Your task to perform on an android device: change text size in settings app Image 0: 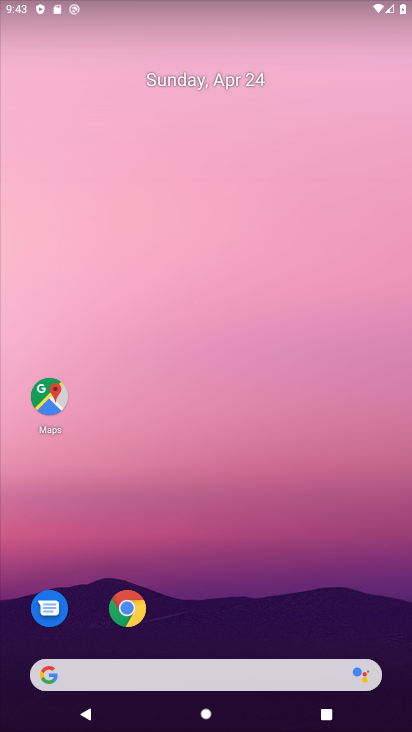
Step 0: drag from (251, 688) to (231, 153)
Your task to perform on an android device: change text size in settings app Image 1: 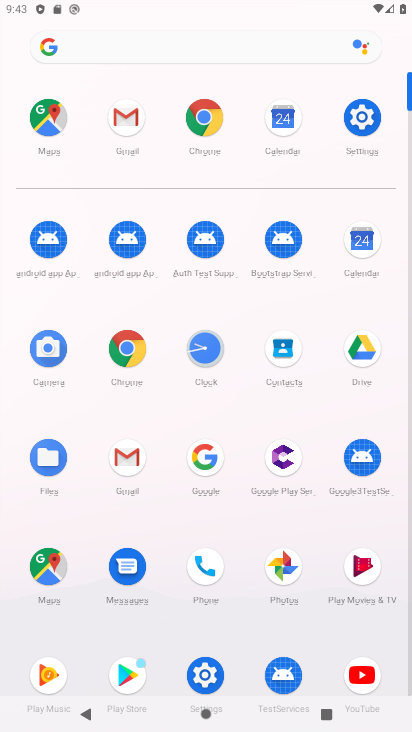
Step 1: click (365, 117)
Your task to perform on an android device: change text size in settings app Image 2: 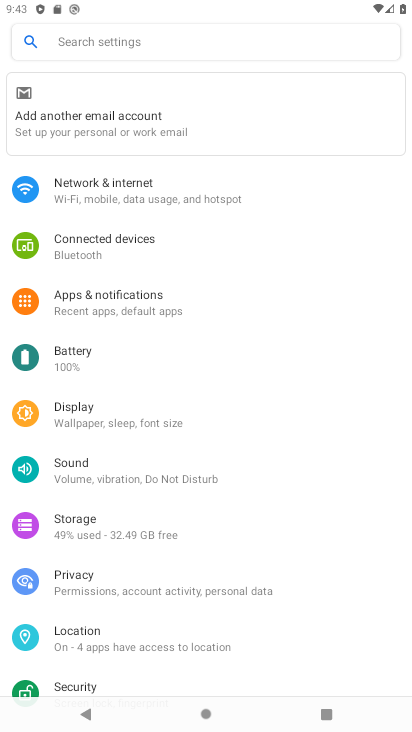
Step 2: click (131, 46)
Your task to perform on an android device: change text size in settings app Image 3: 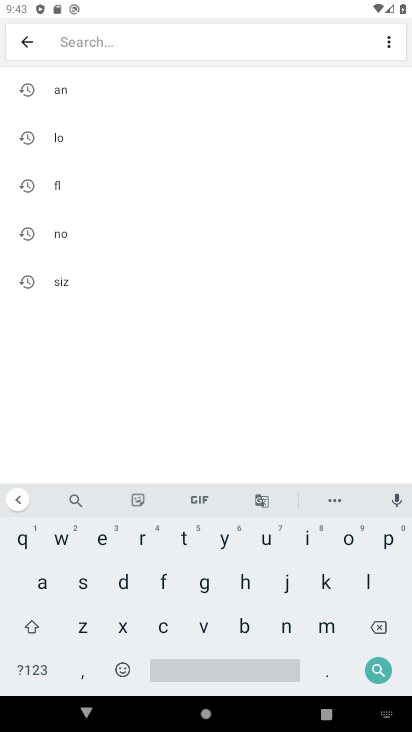
Step 3: click (68, 285)
Your task to perform on an android device: change text size in settings app Image 4: 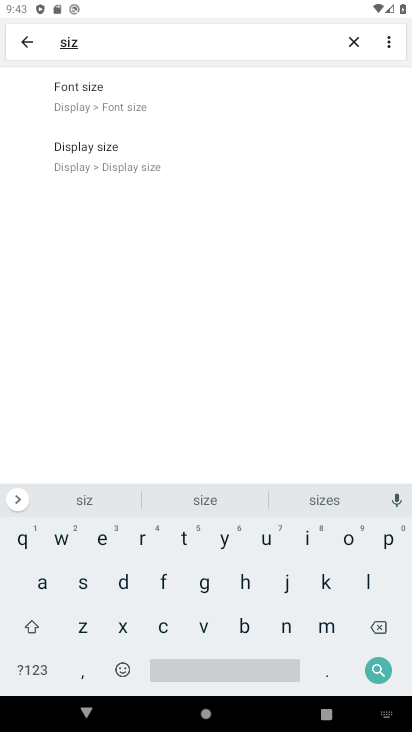
Step 4: click (139, 82)
Your task to perform on an android device: change text size in settings app Image 5: 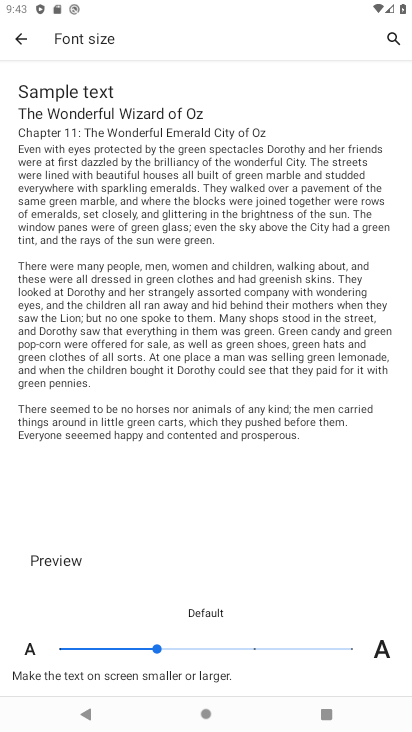
Step 5: click (79, 644)
Your task to perform on an android device: change text size in settings app Image 6: 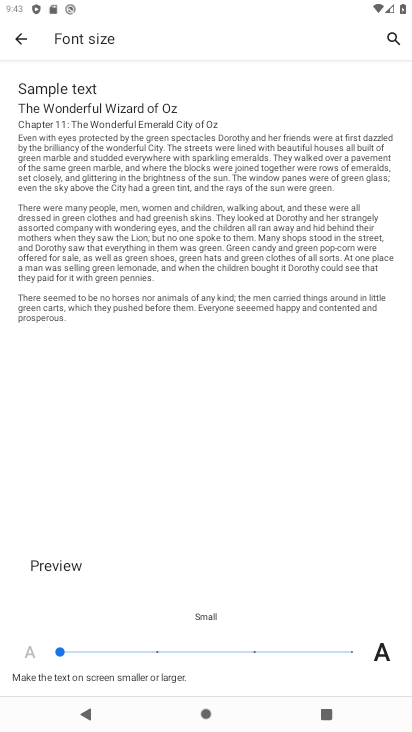
Step 6: click (164, 643)
Your task to perform on an android device: change text size in settings app Image 7: 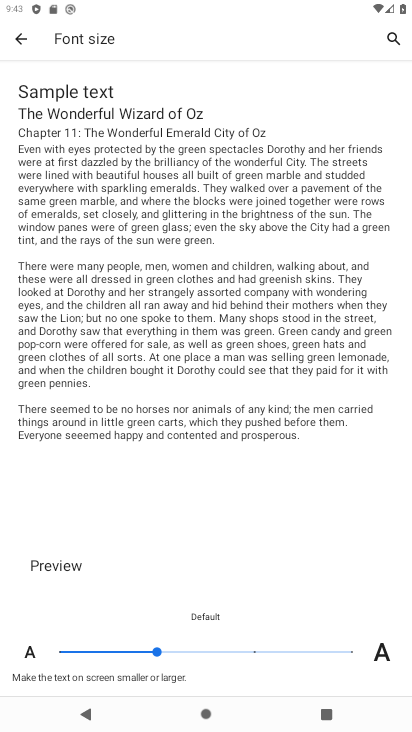
Step 7: task complete